Your task to perform on an android device: Go to Google maps Image 0: 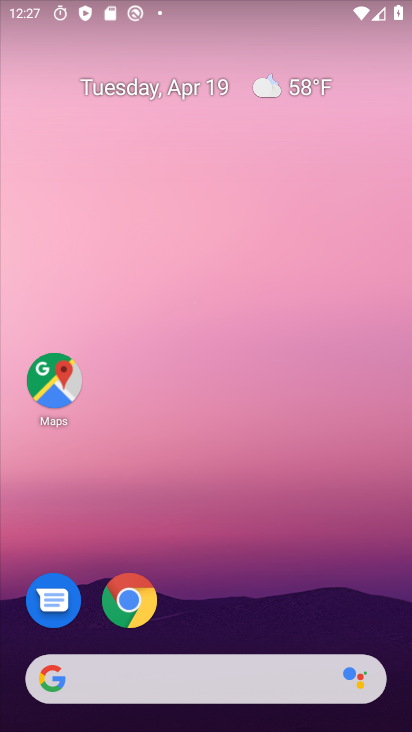
Step 0: drag from (284, 666) to (237, 156)
Your task to perform on an android device: Go to Google maps Image 1: 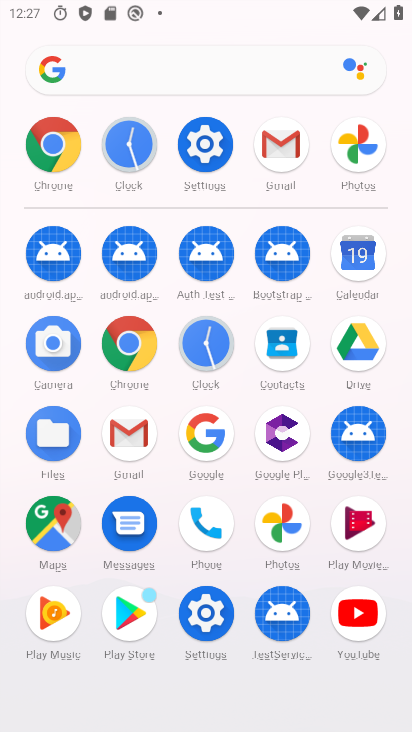
Step 1: click (64, 529)
Your task to perform on an android device: Go to Google maps Image 2: 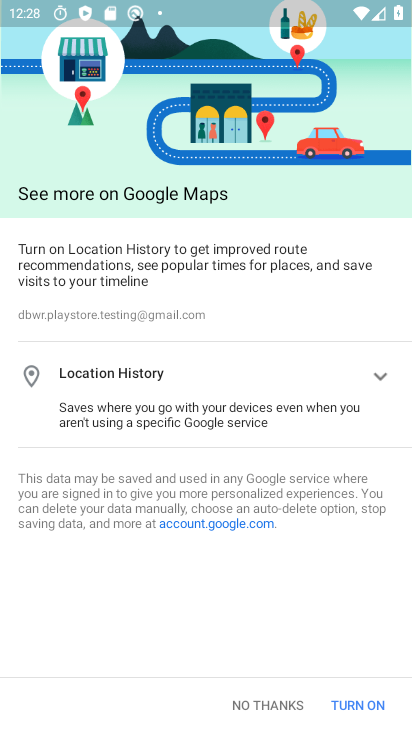
Step 2: click (252, 700)
Your task to perform on an android device: Go to Google maps Image 3: 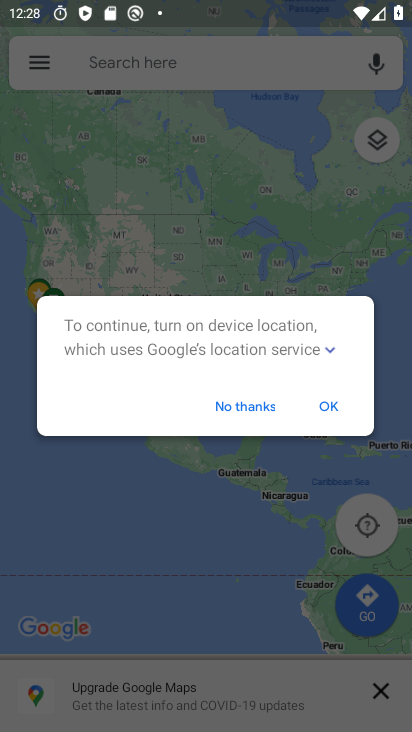
Step 3: click (315, 402)
Your task to perform on an android device: Go to Google maps Image 4: 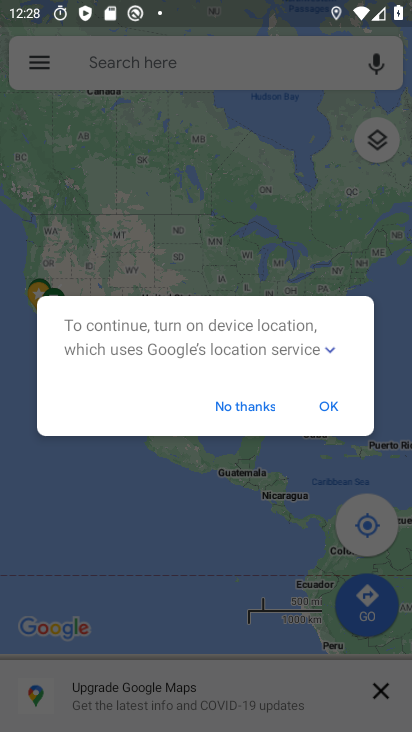
Step 4: click (234, 410)
Your task to perform on an android device: Go to Google maps Image 5: 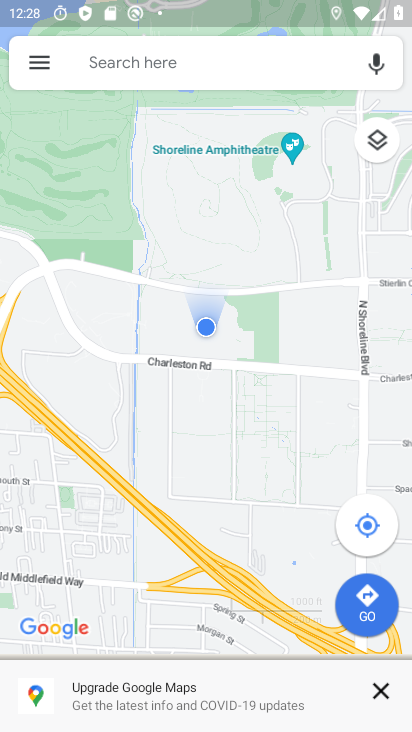
Step 5: task complete